Your task to perform on an android device: Open Wikipedia Image 0: 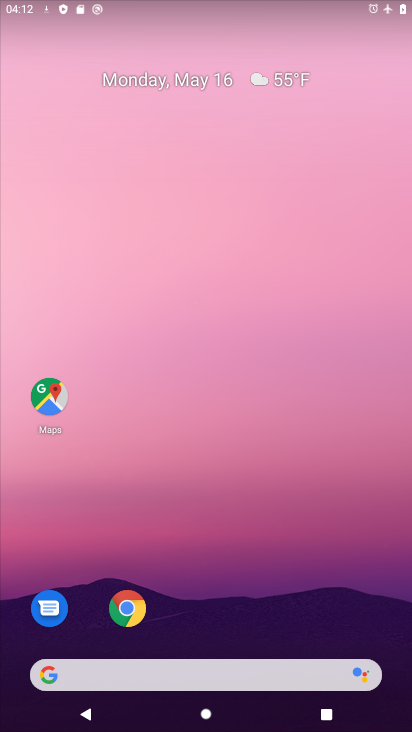
Step 0: click (167, 667)
Your task to perform on an android device: Open Wikipedia Image 1: 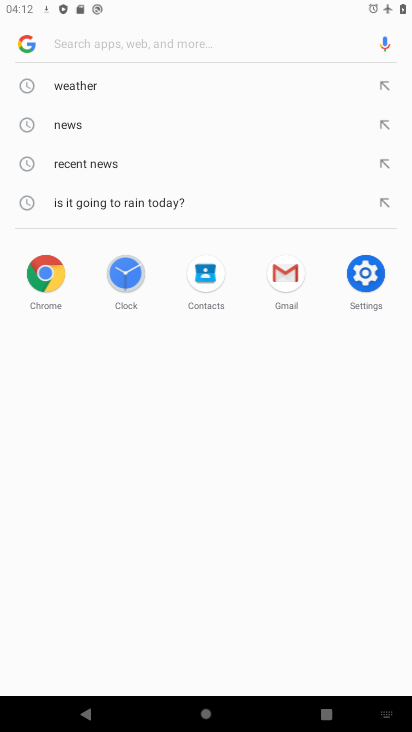
Step 1: type "Wikipedia"
Your task to perform on an android device: Open Wikipedia Image 2: 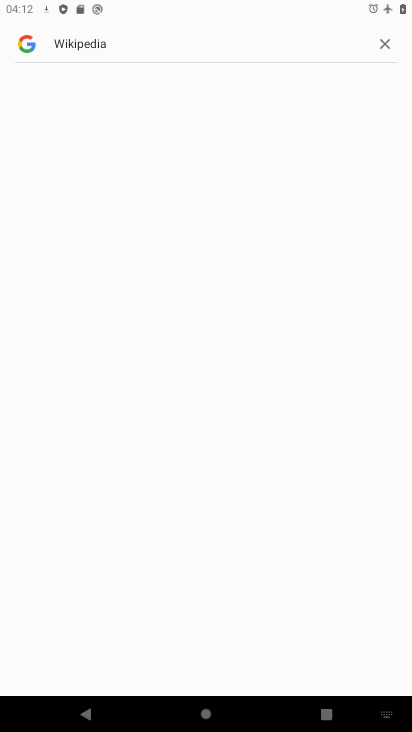
Step 2: task complete